Your task to perform on an android device: Go to Yahoo.com Image 0: 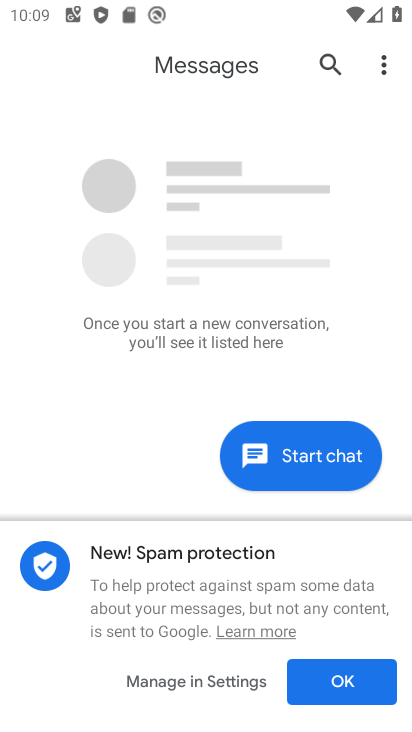
Step 0: press home button
Your task to perform on an android device: Go to Yahoo.com Image 1: 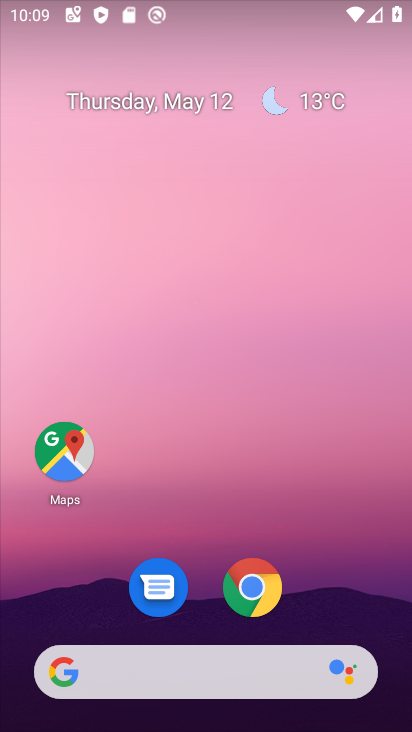
Step 1: click (163, 671)
Your task to perform on an android device: Go to Yahoo.com Image 2: 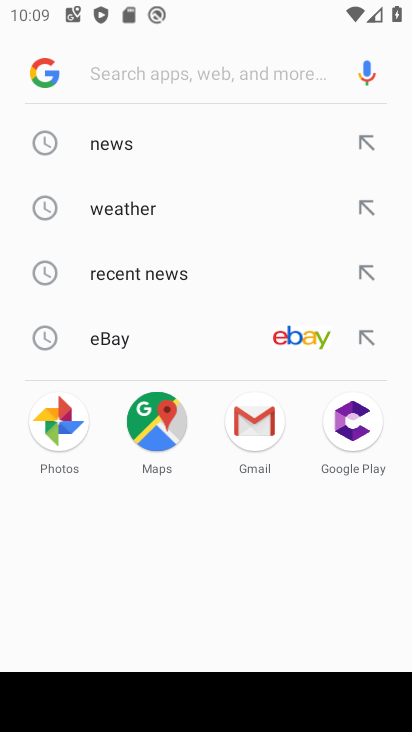
Step 2: type "yahoo"
Your task to perform on an android device: Go to Yahoo.com Image 3: 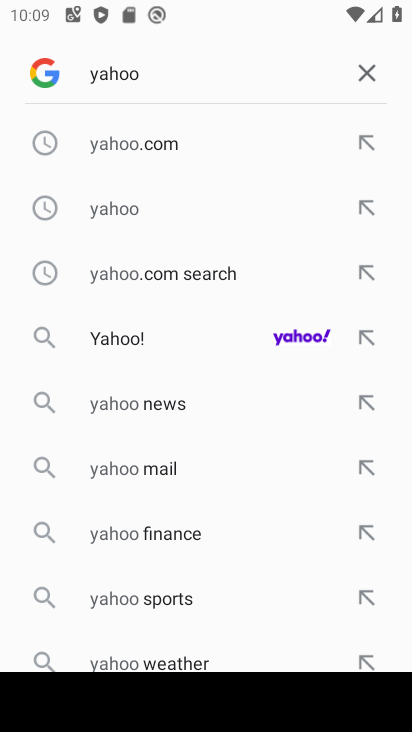
Step 3: click (175, 139)
Your task to perform on an android device: Go to Yahoo.com Image 4: 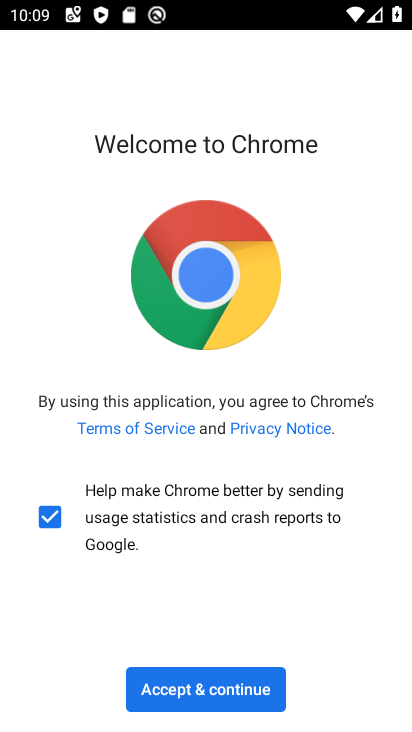
Step 4: click (208, 700)
Your task to perform on an android device: Go to Yahoo.com Image 5: 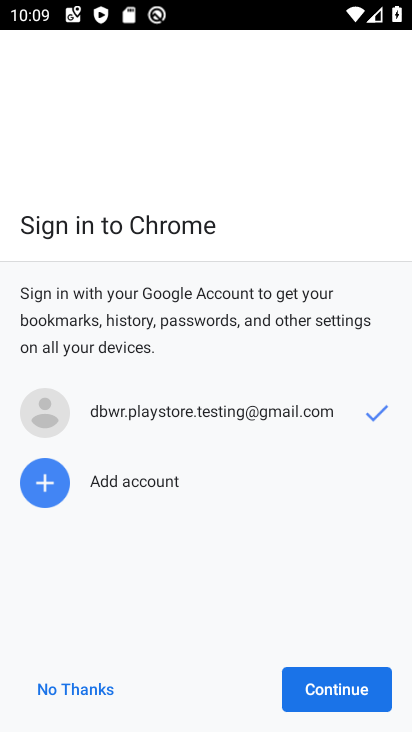
Step 5: click (299, 694)
Your task to perform on an android device: Go to Yahoo.com Image 6: 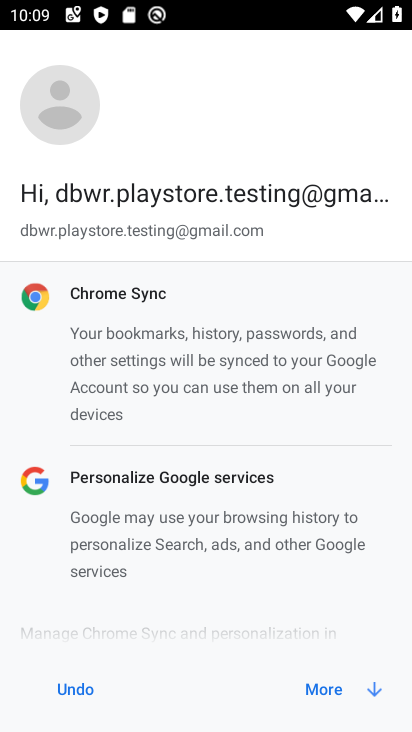
Step 6: click (299, 694)
Your task to perform on an android device: Go to Yahoo.com Image 7: 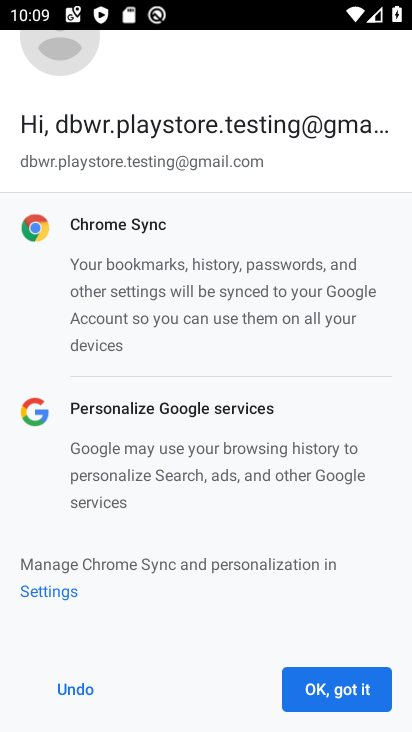
Step 7: click (299, 694)
Your task to perform on an android device: Go to Yahoo.com Image 8: 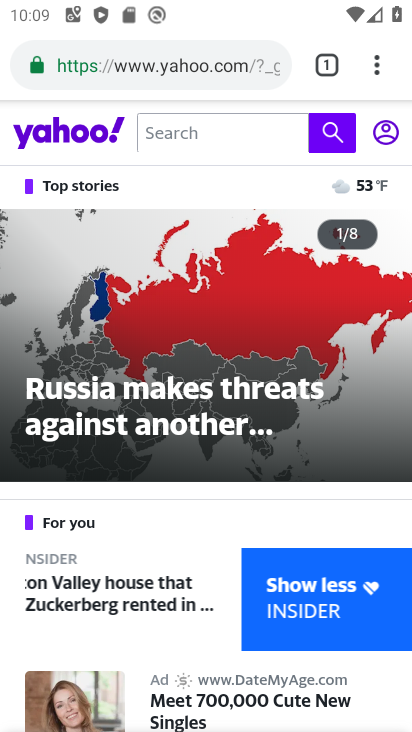
Step 8: task complete